Your task to perform on an android device: all mails in gmail Image 0: 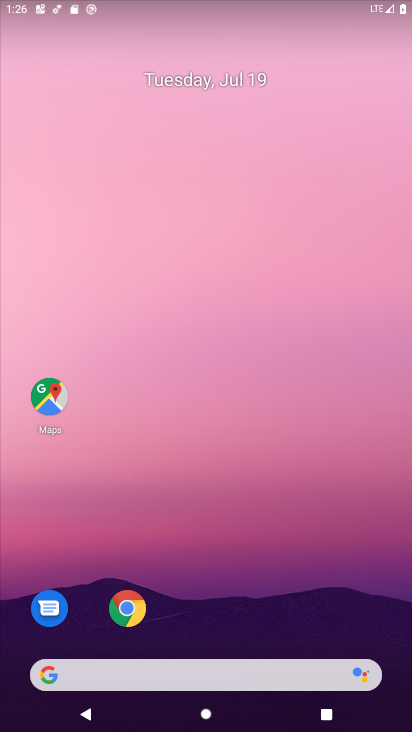
Step 0: drag from (219, 557) to (280, 17)
Your task to perform on an android device: all mails in gmail Image 1: 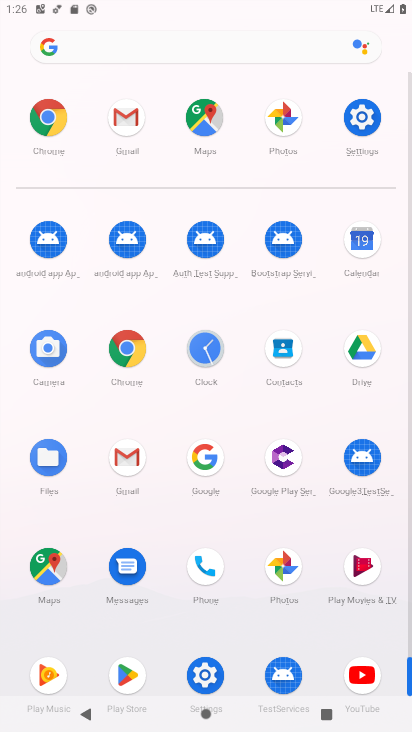
Step 1: click (120, 467)
Your task to perform on an android device: all mails in gmail Image 2: 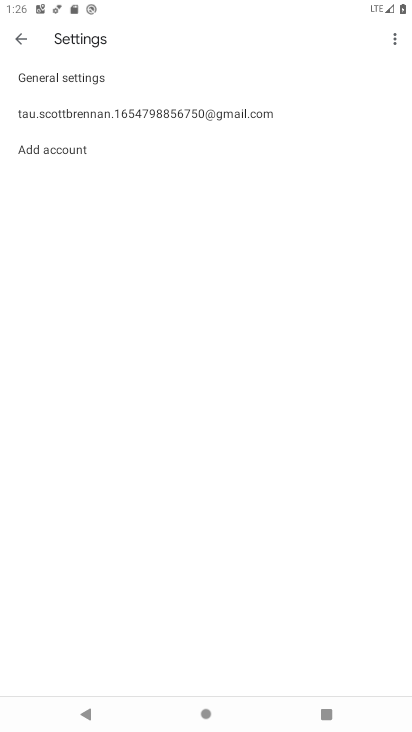
Step 2: press back button
Your task to perform on an android device: all mails in gmail Image 3: 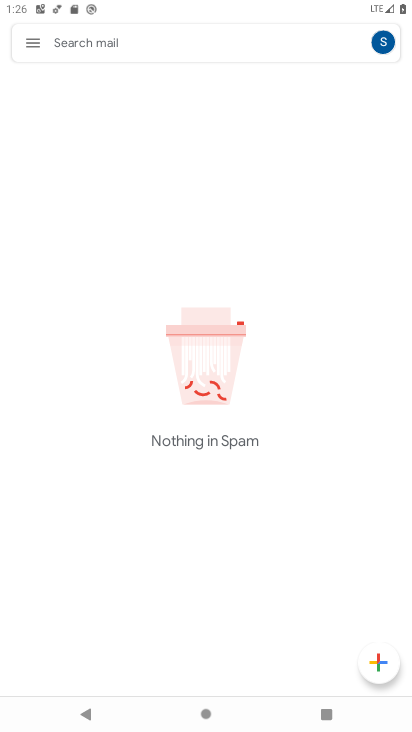
Step 3: click (37, 50)
Your task to perform on an android device: all mails in gmail Image 4: 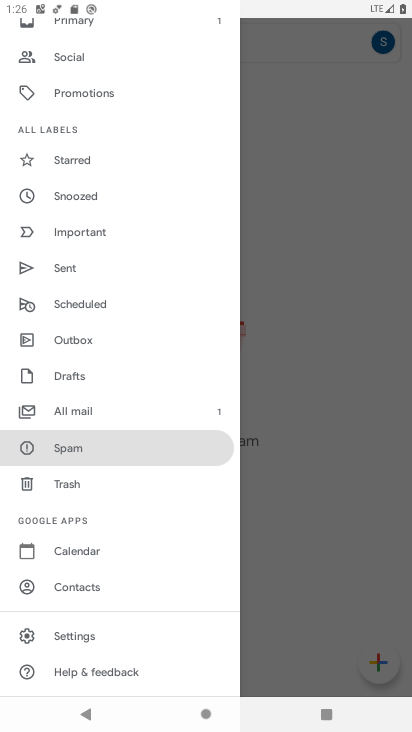
Step 4: click (98, 411)
Your task to perform on an android device: all mails in gmail Image 5: 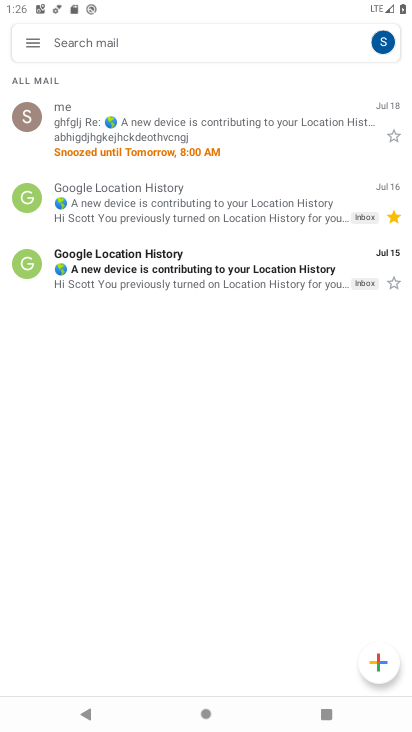
Step 5: task complete